Your task to perform on an android device: Go to privacy settings Image 0: 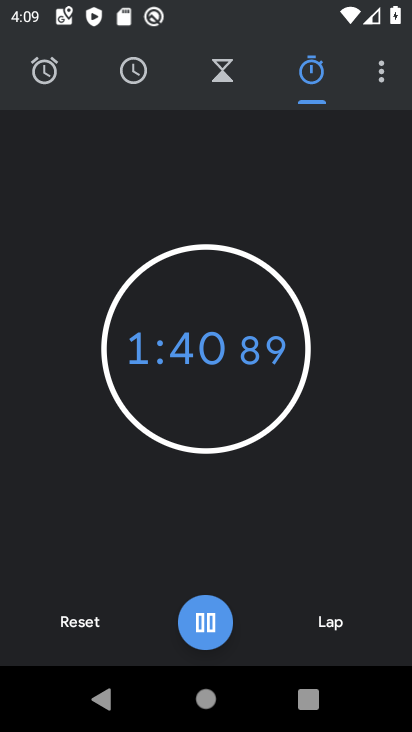
Step 0: press home button
Your task to perform on an android device: Go to privacy settings Image 1: 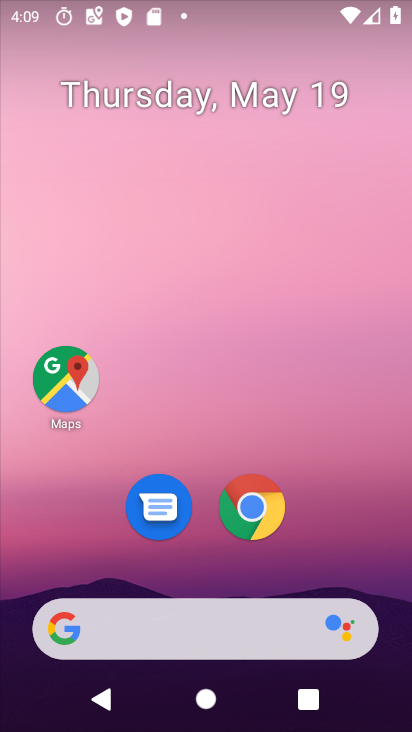
Step 1: drag from (390, 667) to (366, 284)
Your task to perform on an android device: Go to privacy settings Image 2: 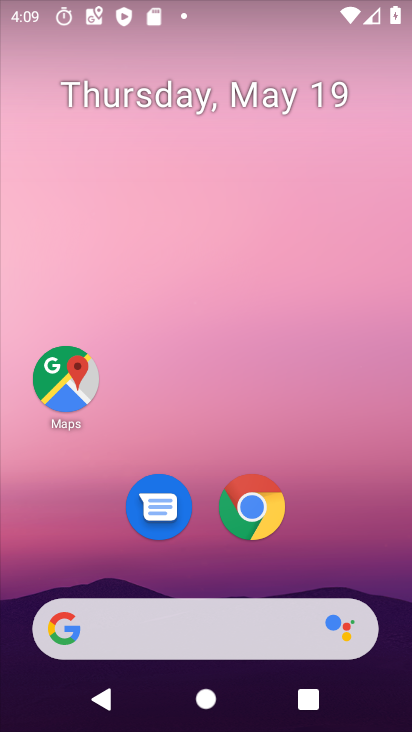
Step 2: drag from (394, 676) to (338, 248)
Your task to perform on an android device: Go to privacy settings Image 3: 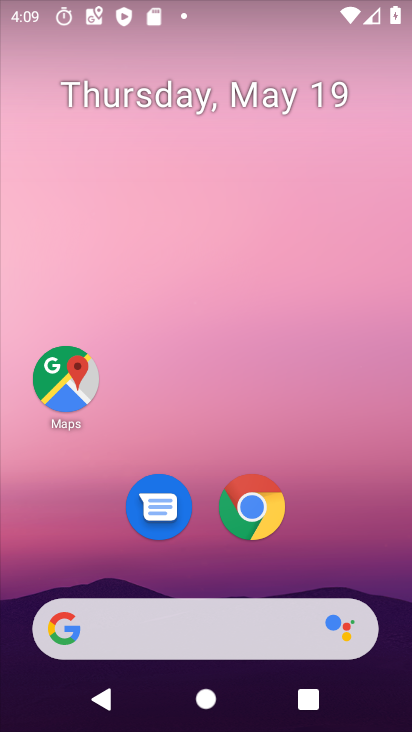
Step 3: drag from (390, 560) to (337, 224)
Your task to perform on an android device: Go to privacy settings Image 4: 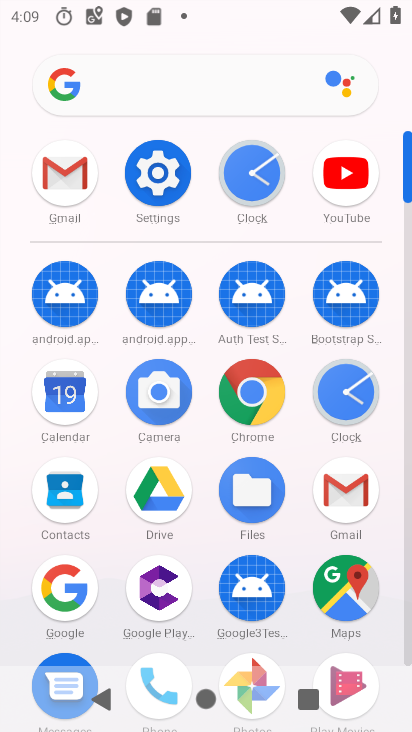
Step 4: click (247, 399)
Your task to perform on an android device: Go to privacy settings Image 5: 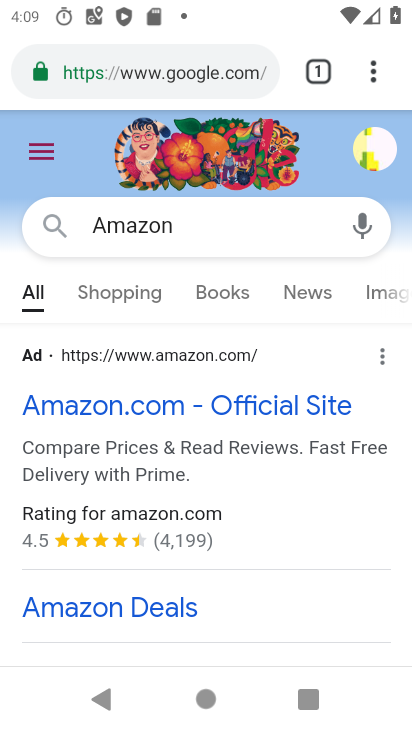
Step 5: click (374, 74)
Your task to perform on an android device: Go to privacy settings Image 6: 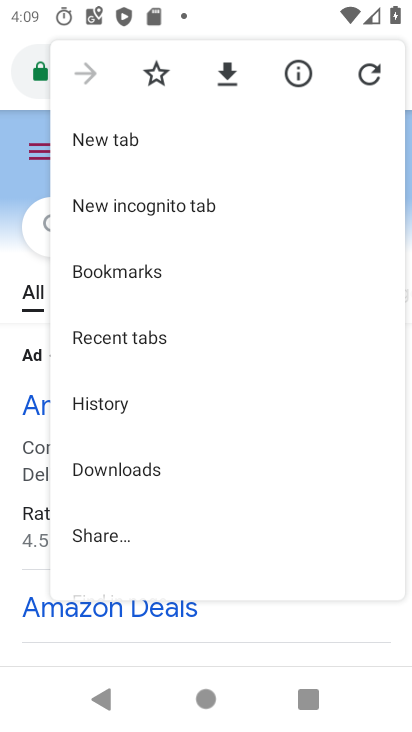
Step 6: drag from (200, 541) to (206, 367)
Your task to perform on an android device: Go to privacy settings Image 7: 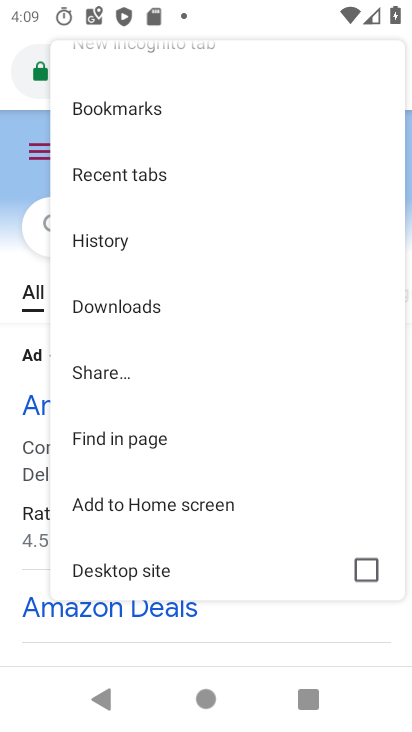
Step 7: drag from (252, 526) to (248, 303)
Your task to perform on an android device: Go to privacy settings Image 8: 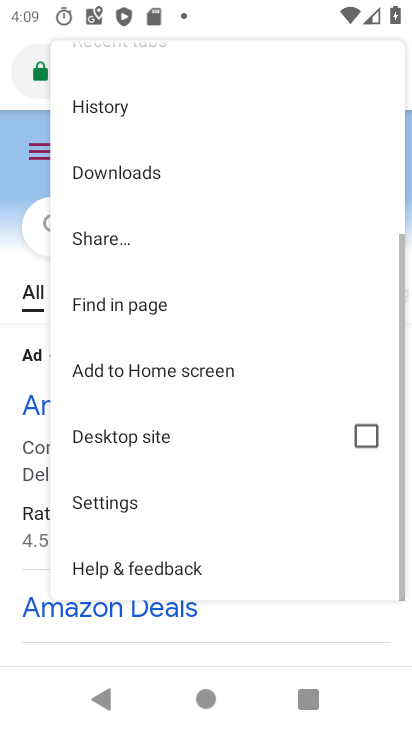
Step 8: click (86, 503)
Your task to perform on an android device: Go to privacy settings Image 9: 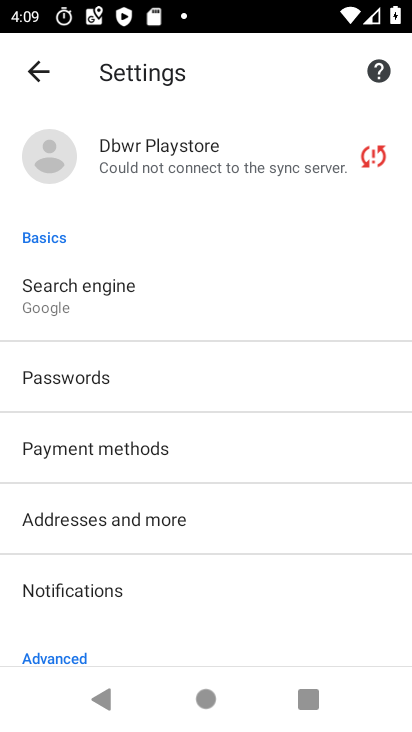
Step 9: drag from (130, 630) to (164, 373)
Your task to perform on an android device: Go to privacy settings Image 10: 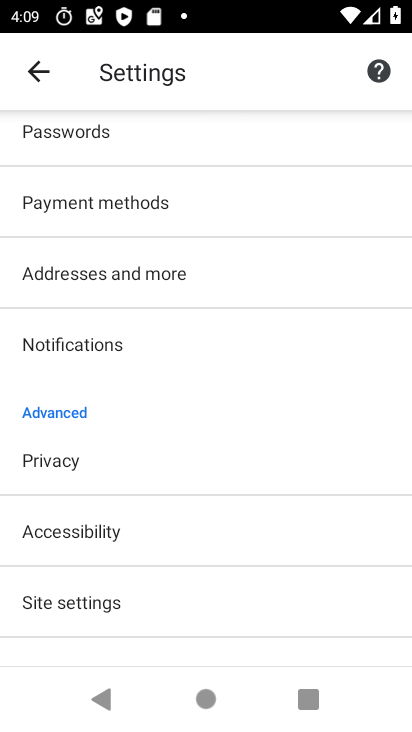
Step 10: click (60, 459)
Your task to perform on an android device: Go to privacy settings Image 11: 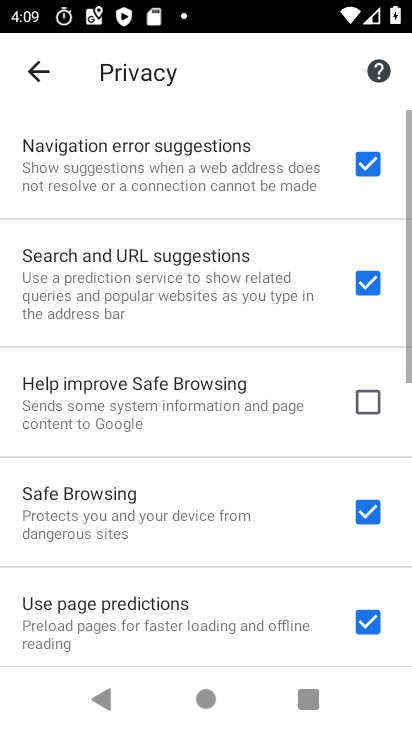
Step 11: task complete